Your task to perform on an android device: Open network settings Image 0: 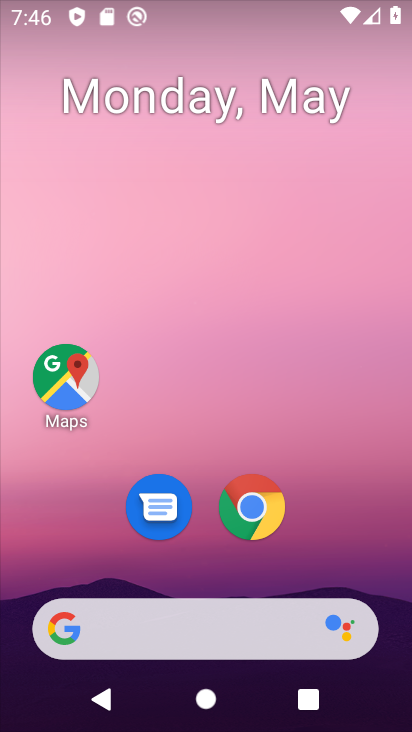
Step 0: drag from (337, 554) to (305, 15)
Your task to perform on an android device: Open network settings Image 1: 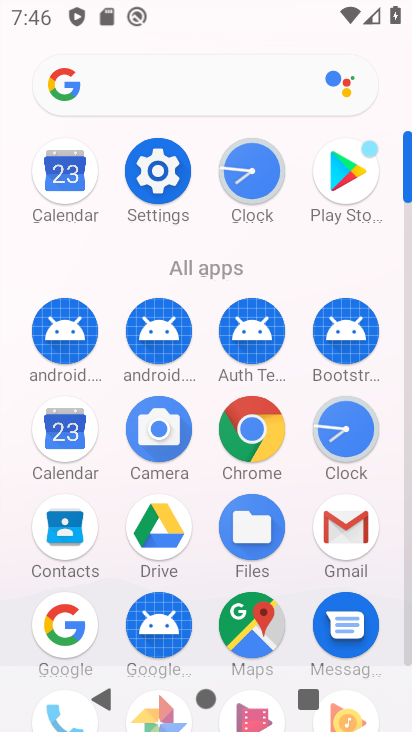
Step 1: click (160, 178)
Your task to perform on an android device: Open network settings Image 2: 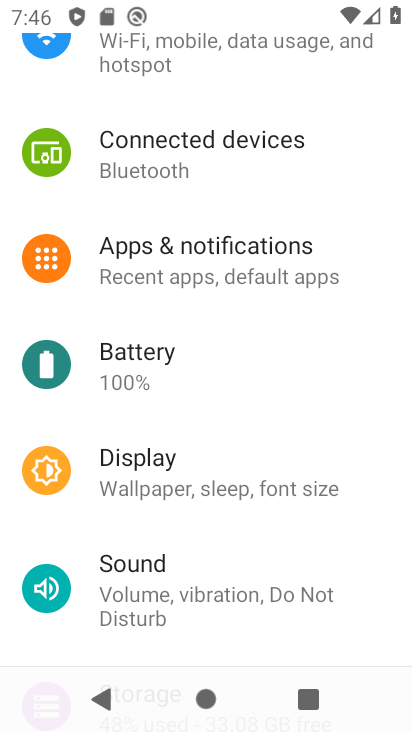
Step 2: drag from (256, 207) to (259, 368)
Your task to perform on an android device: Open network settings Image 3: 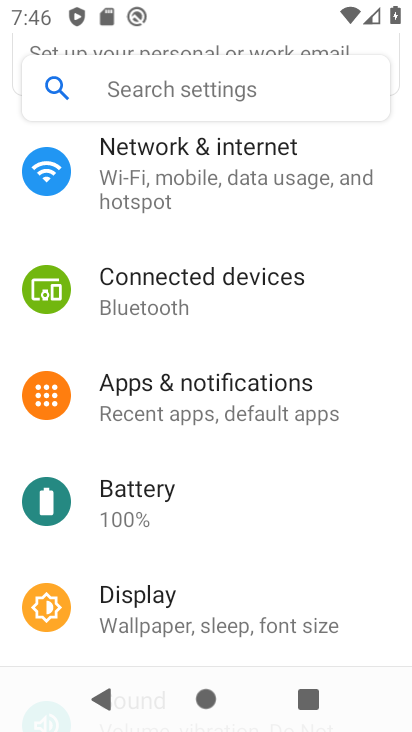
Step 3: click (156, 195)
Your task to perform on an android device: Open network settings Image 4: 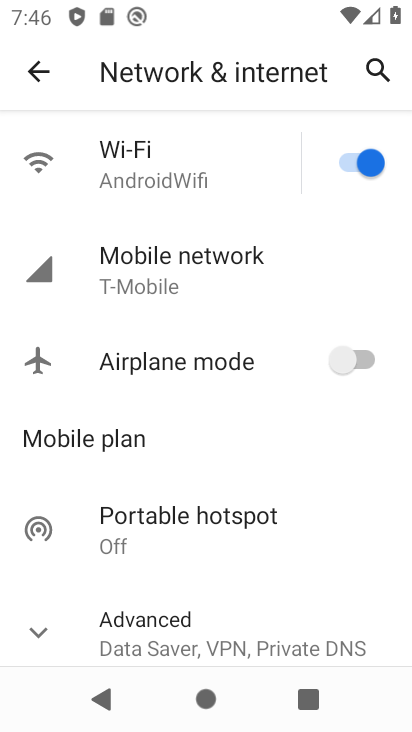
Step 4: click (133, 277)
Your task to perform on an android device: Open network settings Image 5: 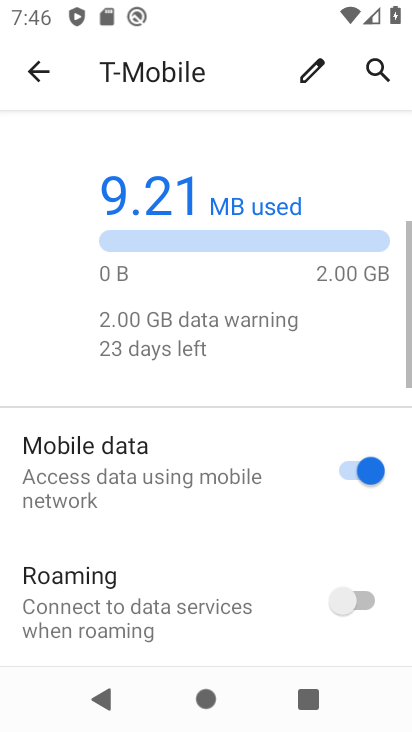
Step 5: drag from (200, 555) to (154, 78)
Your task to perform on an android device: Open network settings Image 6: 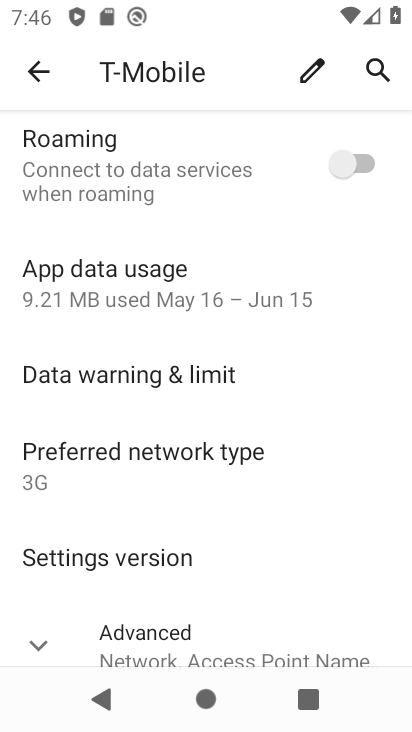
Step 6: click (46, 656)
Your task to perform on an android device: Open network settings Image 7: 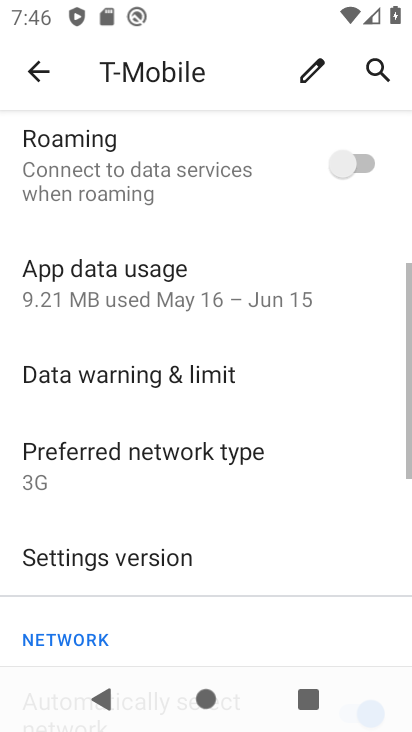
Step 7: task complete